Your task to perform on an android device: Do I have any events tomorrow? Image 0: 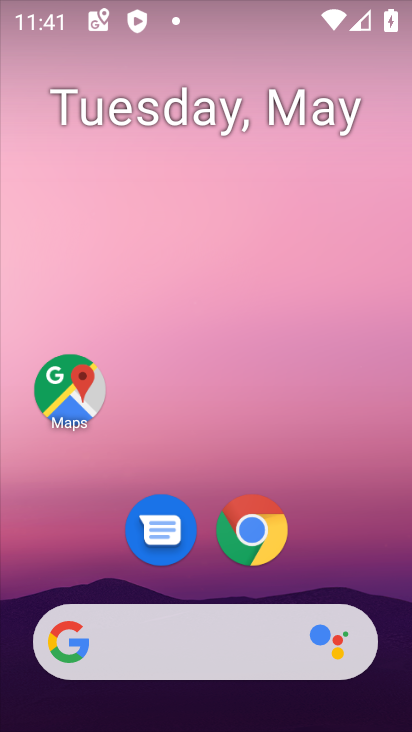
Step 0: drag from (206, 583) to (224, 202)
Your task to perform on an android device: Do I have any events tomorrow? Image 1: 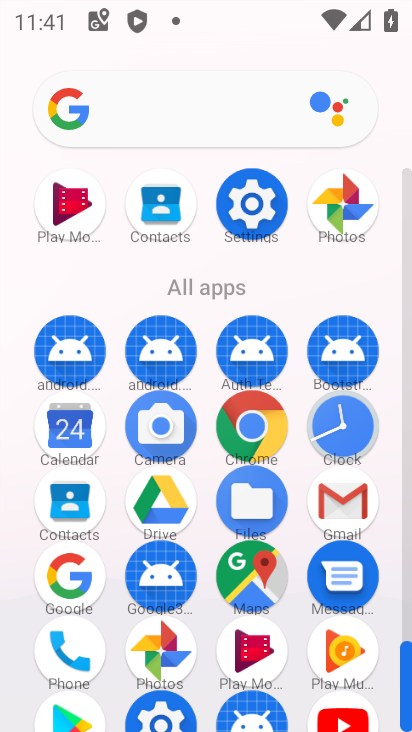
Step 1: click (73, 427)
Your task to perform on an android device: Do I have any events tomorrow? Image 2: 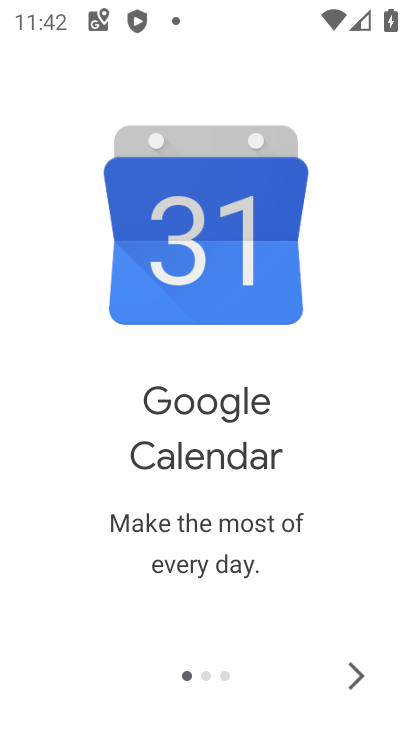
Step 2: click (355, 678)
Your task to perform on an android device: Do I have any events tomorrow? Image 3: 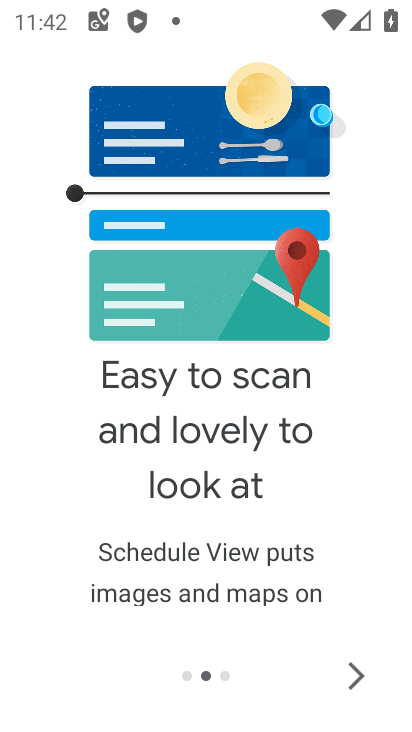
Step 3: click (355, 674)
Your task to perform on an android device: Do I have any events tomorrow? Image 4: 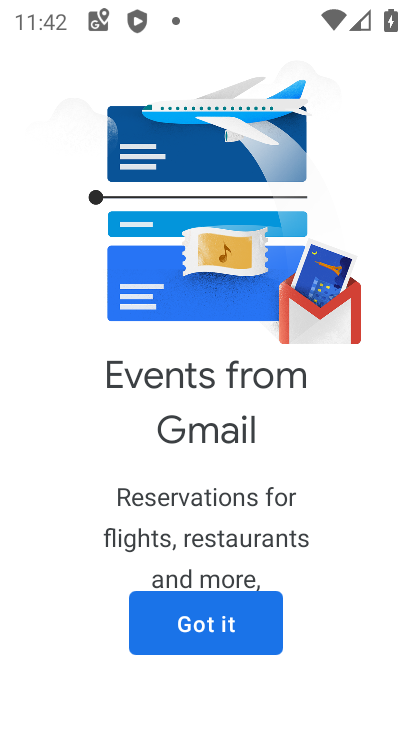
Step 4: click (242, 625)
Your task to perform on an android device: Do I have any events tomorrow? Image 5: 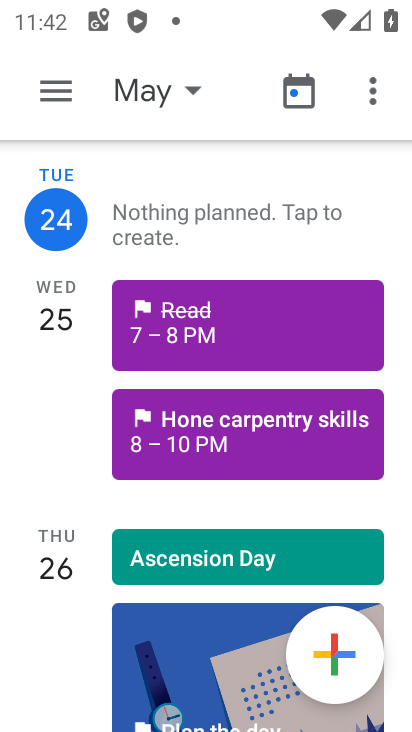
Step 5: click (188, 89)
Your task to perform on an android device: Do I have any events tomorrow? Image 6: 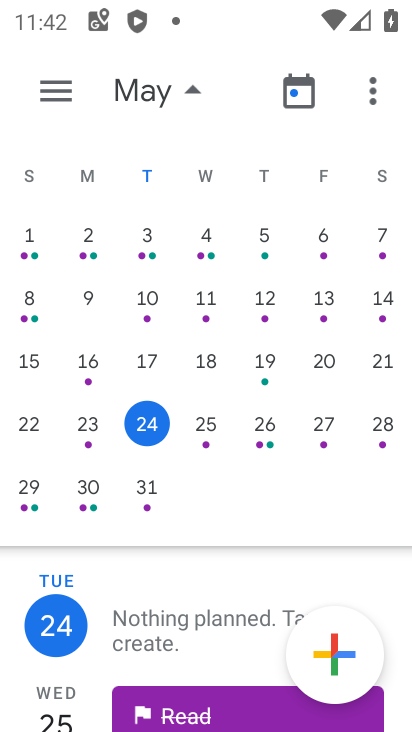
Step 6: click (216, 423)
Your task to perform on an android device: Do I have any events tomorrow? Image 7: 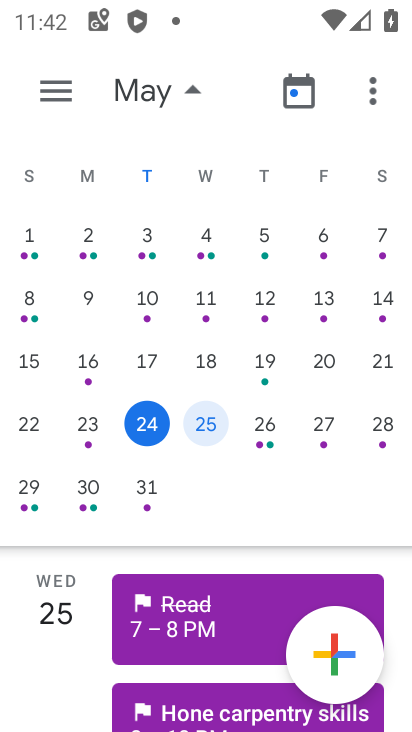
Step 7: task complete